Your task to perform on an android device: toggle pop-ups in chrome Image 0: 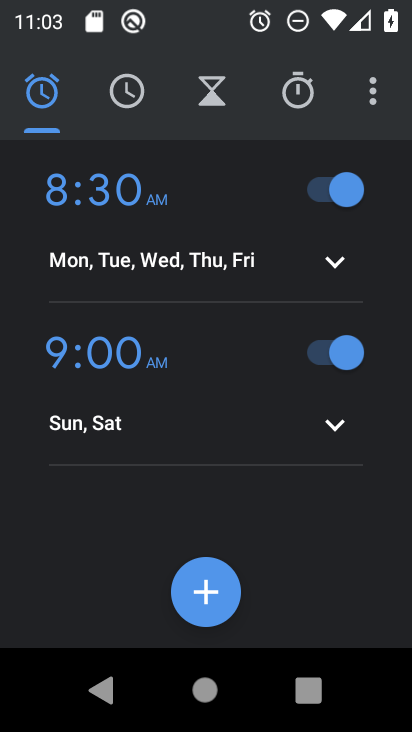
Step 0: press home button
Your task to perform on an android device: toggle pop-ups in chrome Image 1: 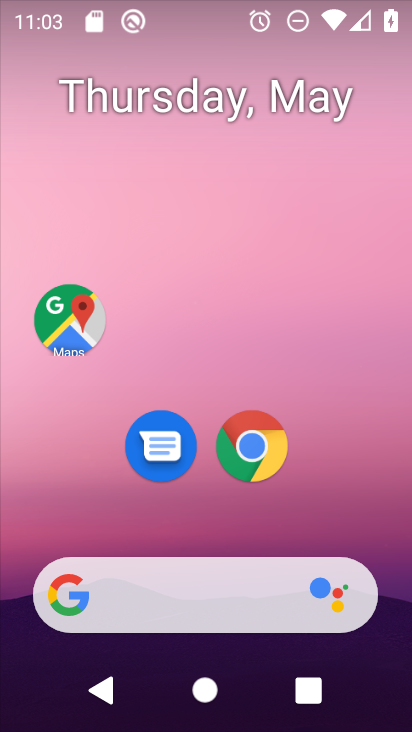
Step 1: drag from (253, 588) to (398, 145)
Your task to perform on an android device: toggle pop-ups in chrome Image 2: 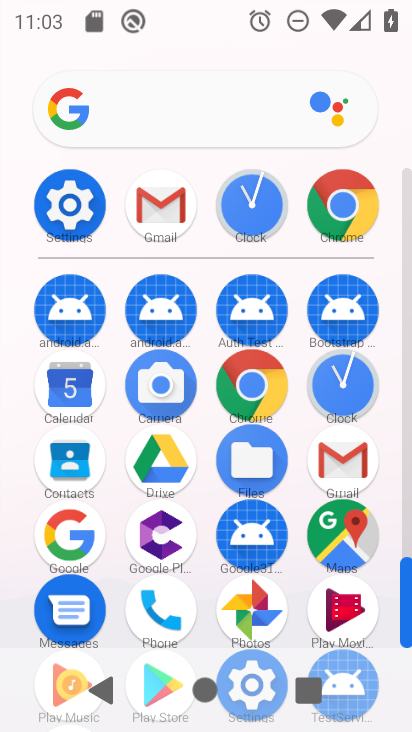
Step 2: click (358, 221)
Your task to perform on an android device: toggle pop-ups in chrome Image 3: 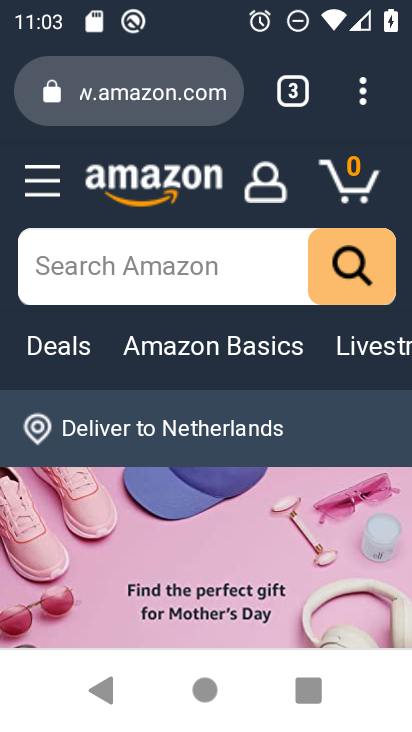
Step 3: click (369, 106)
Your task to perform on an android device: toggle pop-ups in chrome Image 4: 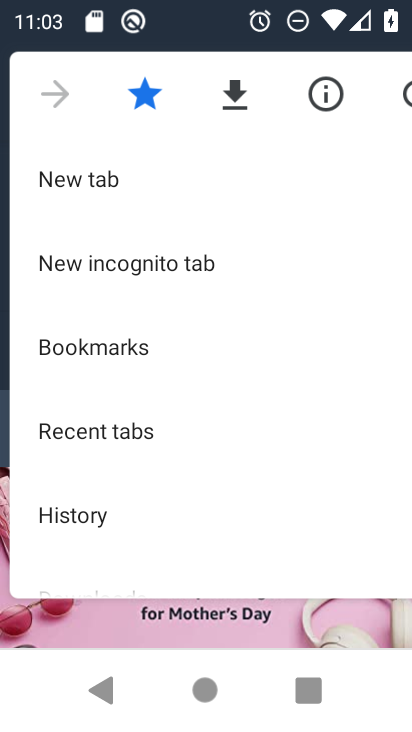
Step 4: drag from (156, 510) to (257, 254)
Your task to perform on an android device: toggle pop-ups in chrome Image 5: 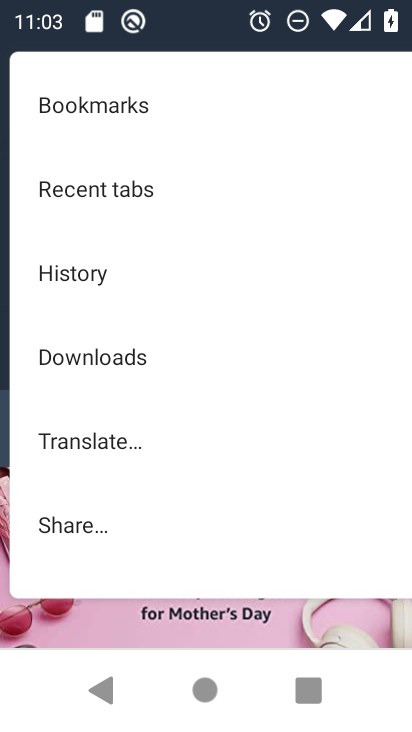
Step 5: drag from (154, 514) to (224, 354)
Your task to perform on an android device: toggle pop-ups in chrome Image 6: 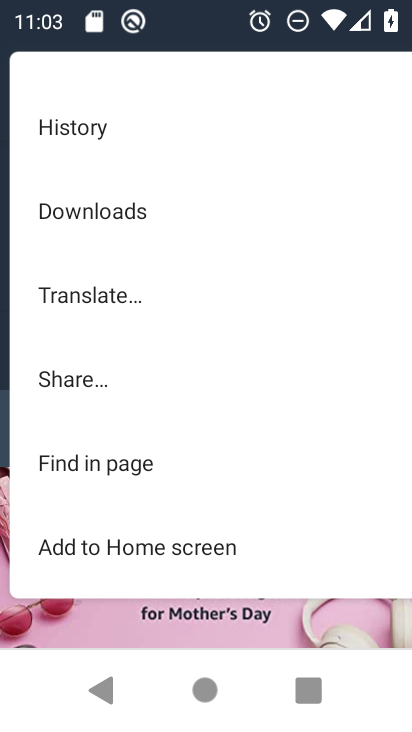
Step 6: drag from (132, 491) to (199, 394)
Your task to perform on an android device: toggle pop-ups in chrome Image 7: 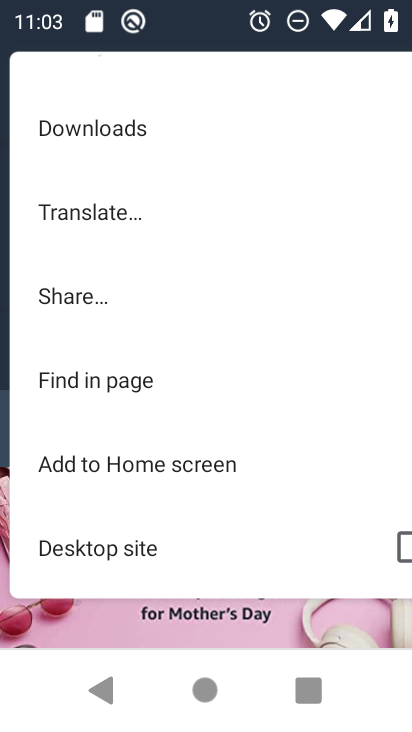
Step 7: drag from (150, 468) to (210, 347)
Your task to perform on an android device: toggle pop-ups in chrome Image 8: 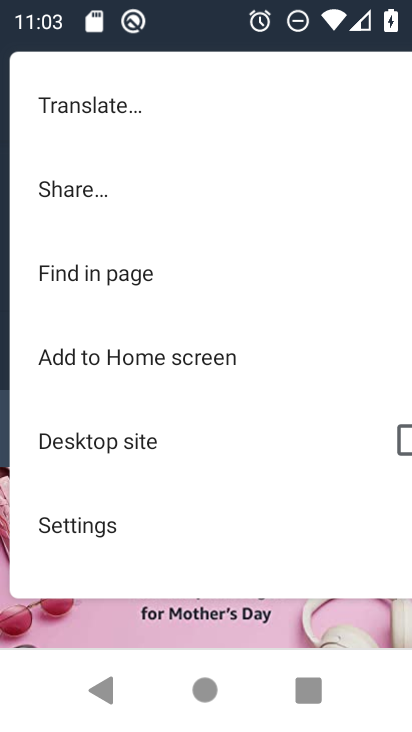
Step 8: click (127, 527)
Your task to perform on an android device: toggle pop-ups in chrome Image 9: 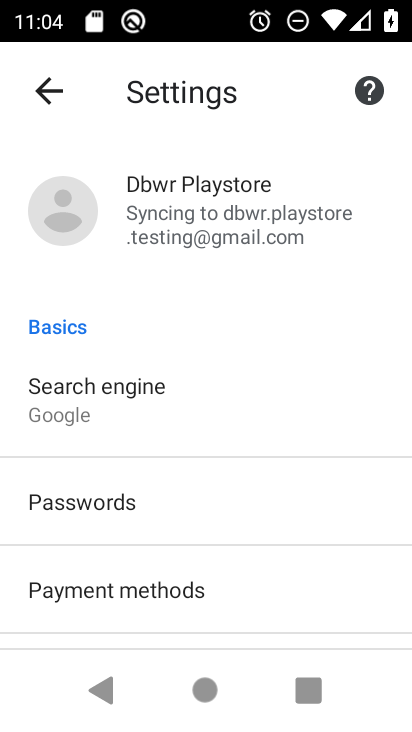
Step 9: drag from (199, 511) to (268, 295)
Your task to perform on an android device: toggle pop-ups in chrome Image 10: 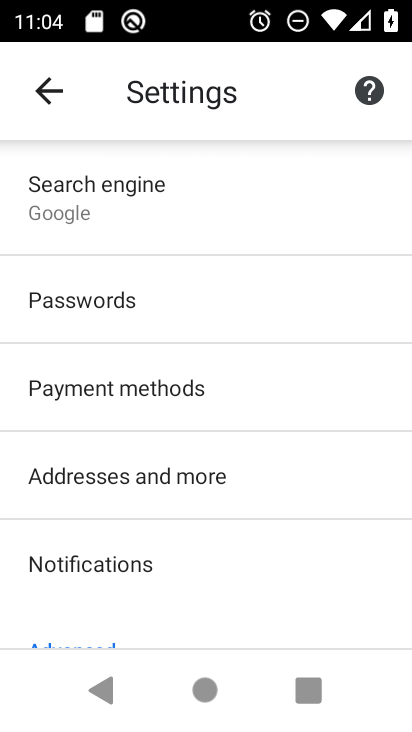
Step 10: drag from (195, 538) to (256, 364)
Your task to perform on an android device: toggle pop-ups in chrome Image 11: 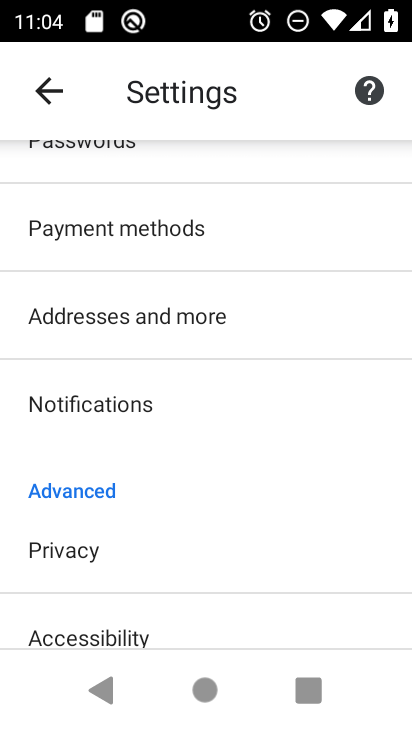
Step 11: drag from (183, 532) to (232, 366)
Your task to perform on an android device: toggle pop-ups in chrome Image 12: 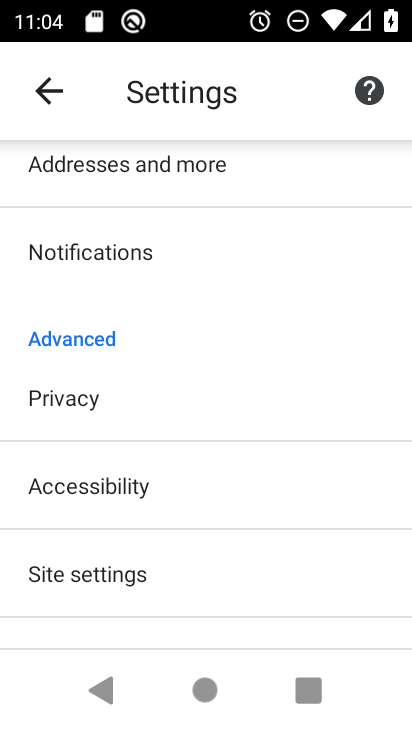
Step 12: click (123, 579)
Your task to perform on an android device: toggle pop-ups in chrome Image 13: 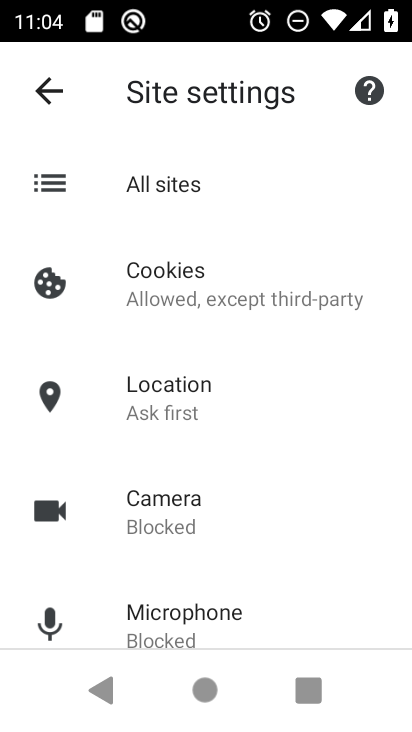
Step 13: drag from (190, 588) to (269, 404)
Your task to perform on an android device: toggle pop-ups in chrome Image 14: 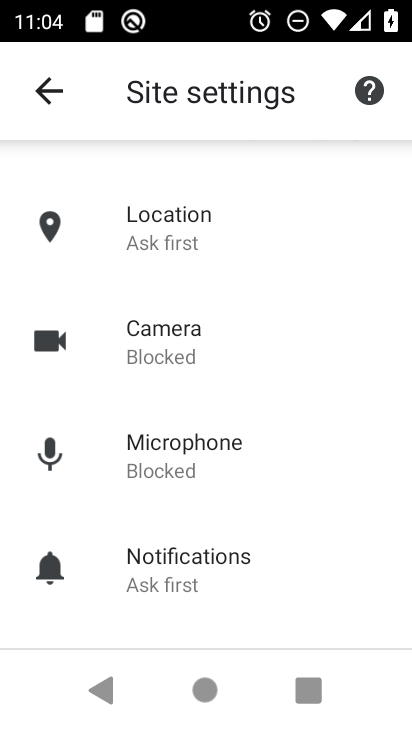
Step 14: drag from (208, 549) to (316, 373)
Your task to perform on an android device: toggle pop-ups in chrome Image 15: 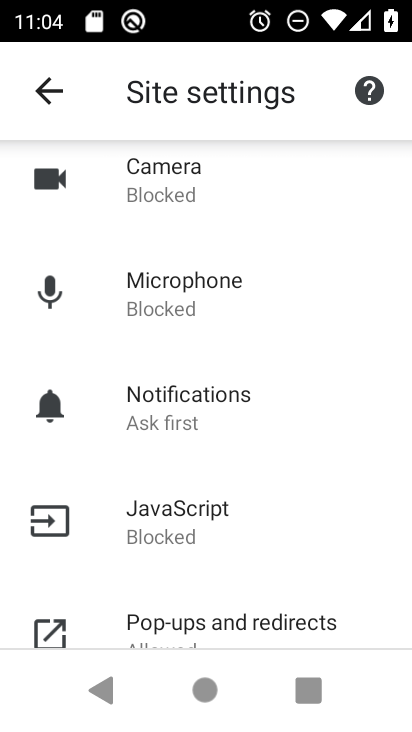
Step 15: click (197, 619)
Your task to perform on an android device: toggle pop-ups in chrome Image 16: 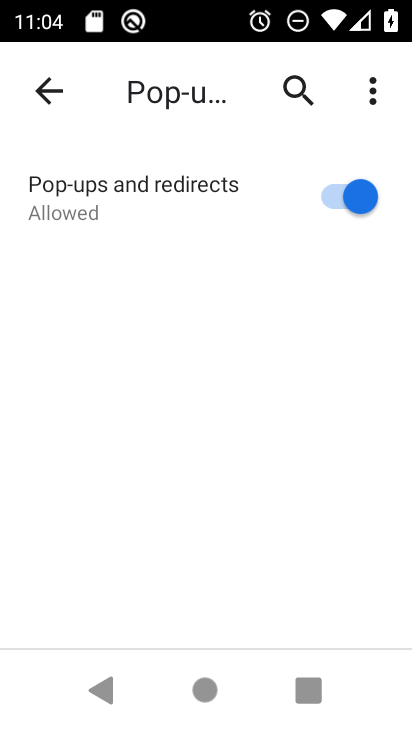
Step 16: task complete